Your task to perform on an android device: toggle location history Image 0: 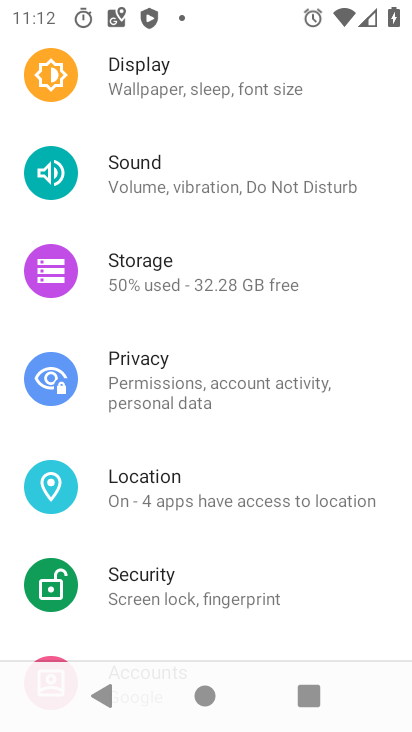
Step 0: click (155, 494)
Your task to perform on an android device: toggle location history Image 1: 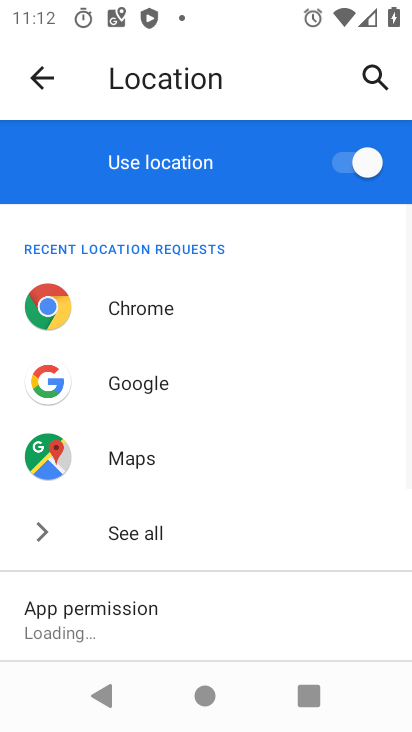
Step 1: drag from (177, 629) to (195, 283)
Your task to perform on an android device: toggle location history Image 2: 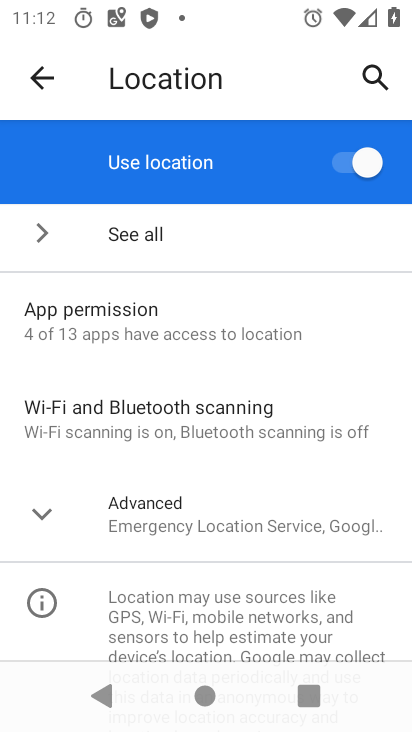
Step 2: click (190, 520)
Your task to perform on an android device: toggle location history Image 3: 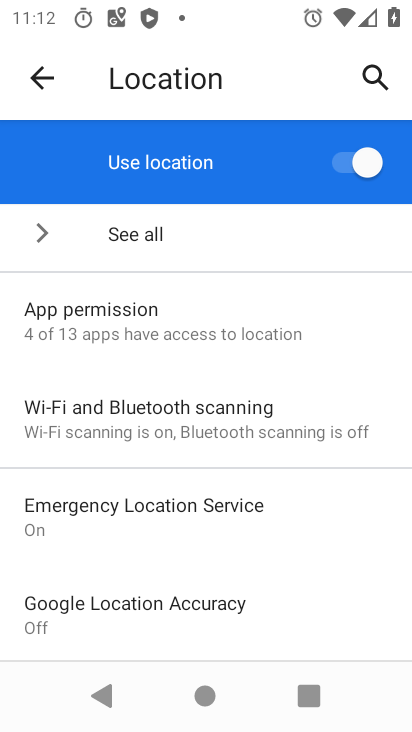
Step 3: drag from (203, 633) to (220, 351)
Your task to perform on an android device: toggle location history Image 4: 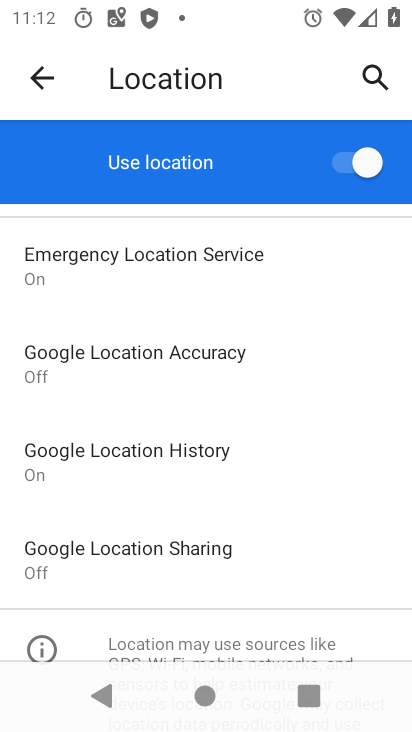
Step 4: click (138, 450)
Your task to perform on an android device: toggle location history Image 5: 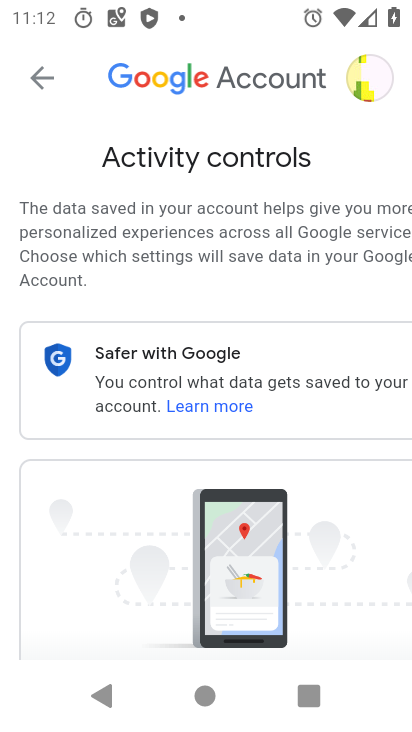
Step 5: drag from (209, 599) to (220, 206)
Your task to perform on an android device: toggle location history Image 6: 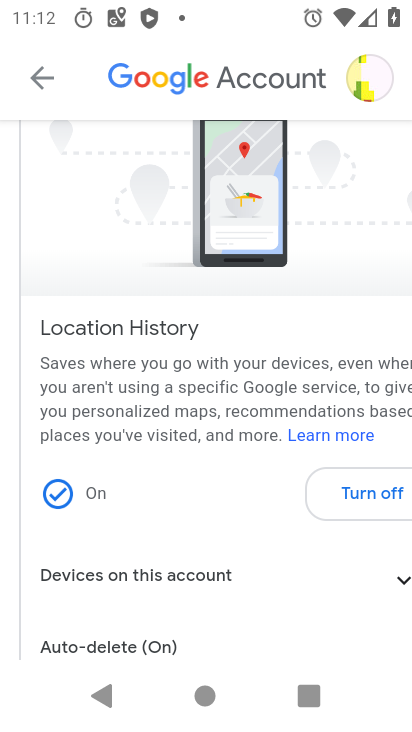
Step 6: click (362, 491)
Your task to perform on an android device: toggle location history Image 7: 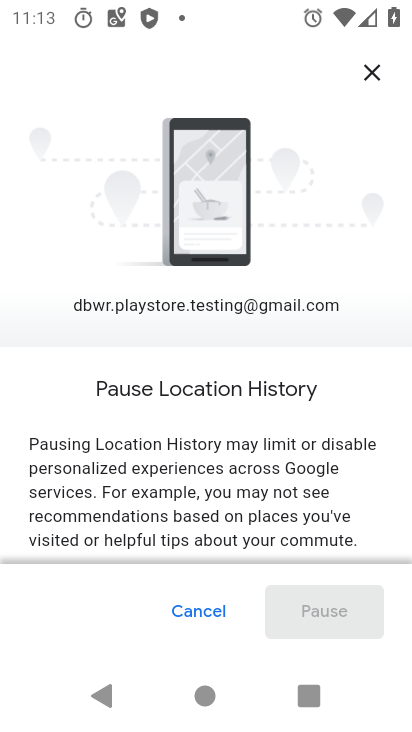
Step 7: drag from (292, 335) to (292, 277)
Your task to perform on an android device: toggle location history Image 8: 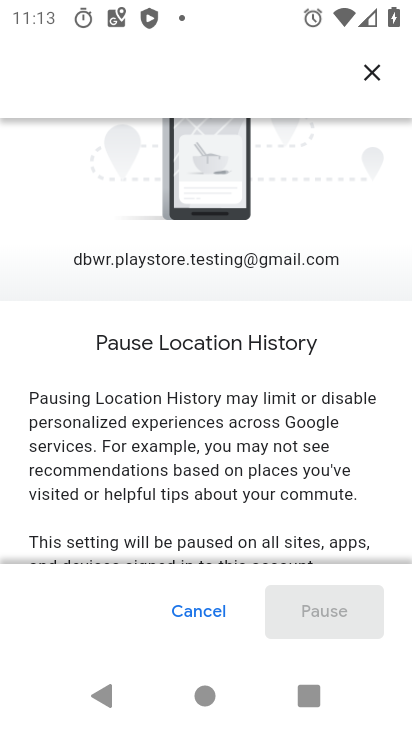
Step 8: drag from (277, 519) to (272, 255)
Your task to perform on an android device: toggle location history Image 9: 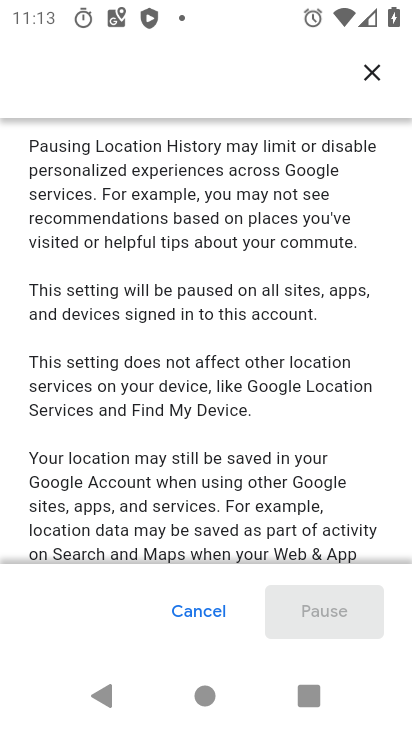
Step 9: drag from (288, 547) to (293, 196)
Your task to perform on an android device: toggle location history Image 10: 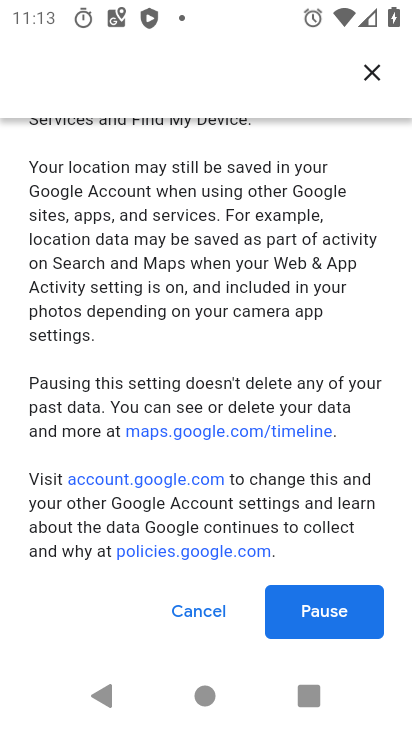
Step 10: click (314, 610)
Your task to perform on an android device: toggle location history Image 11: 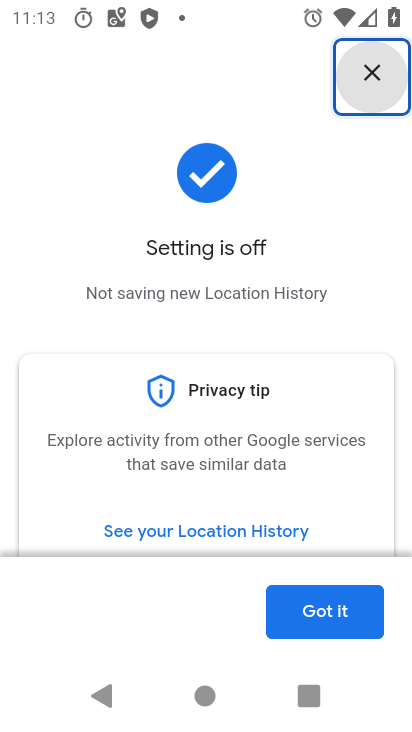
Step 11: click (339, 612)
Your task to perform on an android device: toggle location history Image 12: 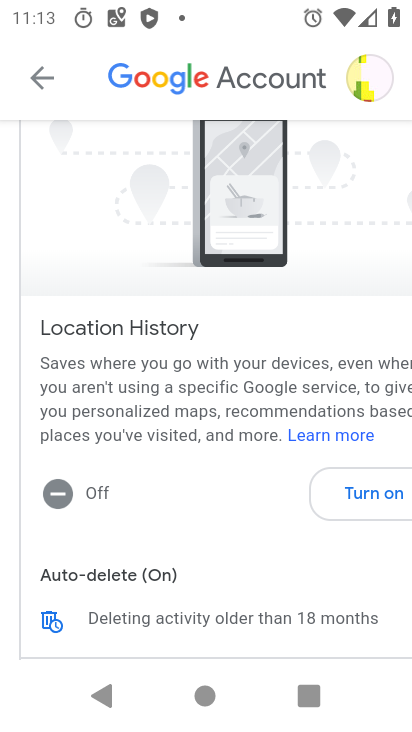
Step 12: task complete